Your task to perform on an android device: set the timer Image 0: 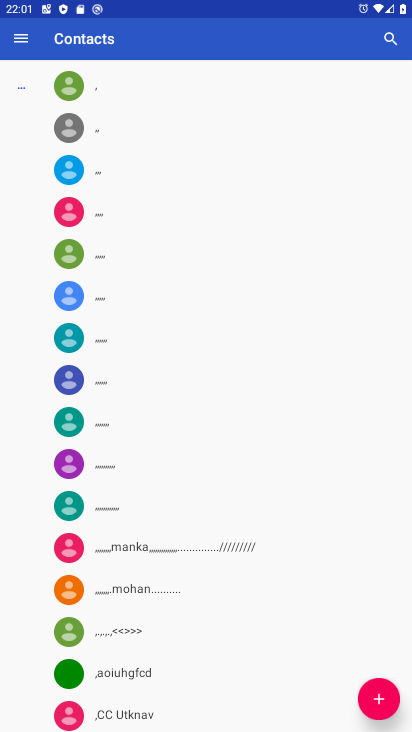
Step 0: press home button
Your task to perform on an android device: set the timer Image 1: 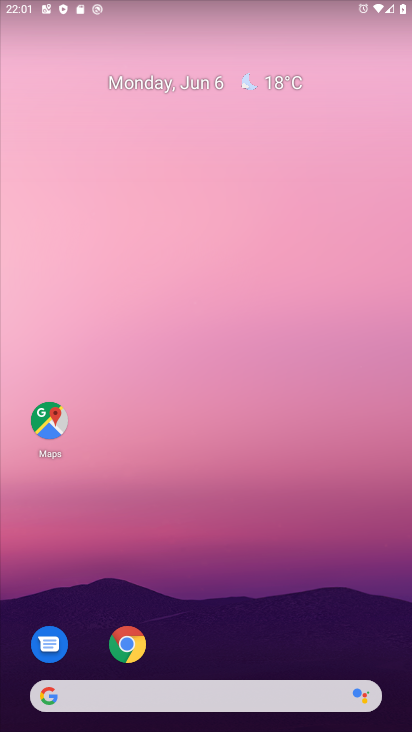
Step 1: drag from (346, 637) to (334, 192)
Your task to perform on an android device: set the timer Image 2: 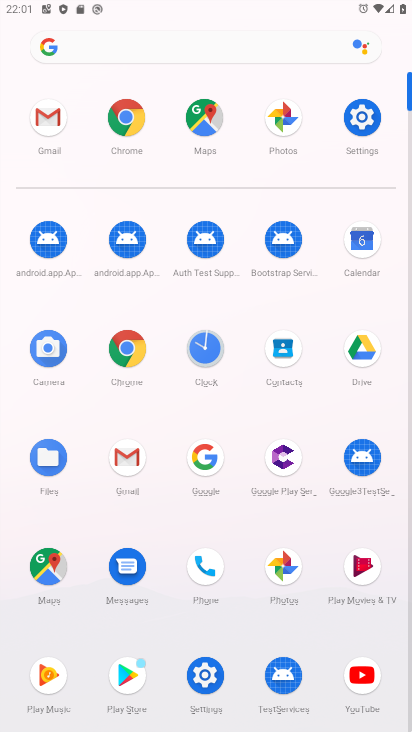
Step 2: click (209, 370)
Your task to perform on an android device: set the timer Image 3: 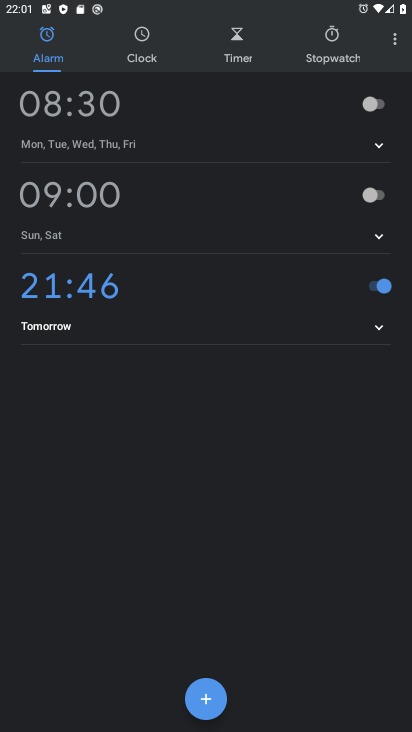
Step 3: click (232, 57)
Your task to perform on an android device: set the timer Image 4: 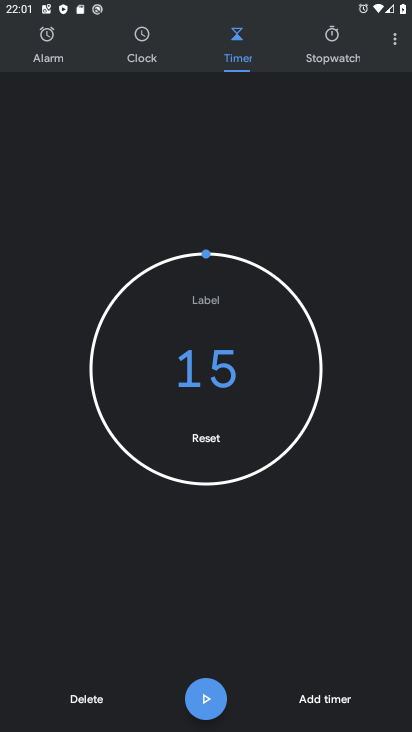
Step 4: click (211, 705)
Your task to perform on an android device: set the timer Image 5: 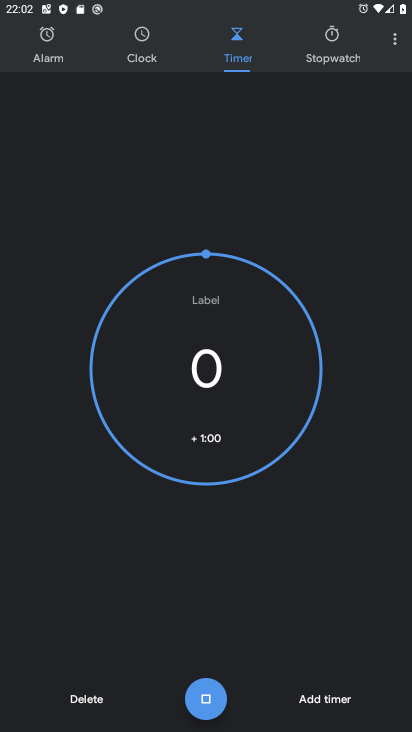
Step 5: click (209, 702)
Your task to perform on an android device: set the timer Image 6: 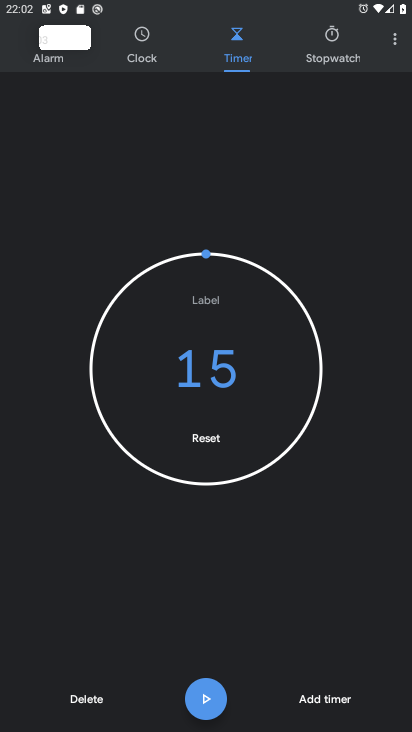
Step 6: click (107, 114)
Your task to perform on an android device: set the timer Image 7: 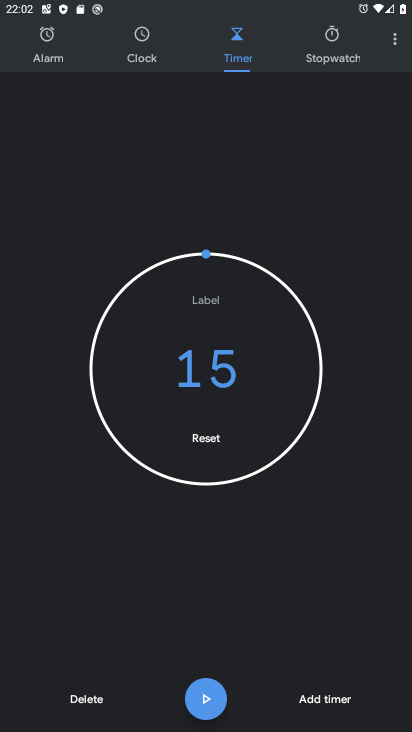
Step 7: task complete